Your task to perform on an android device: toggle improve location accuracy Image 0: 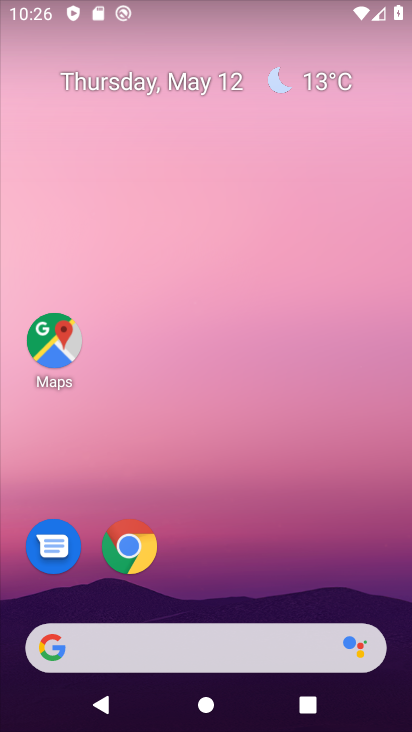
Step 0: drag from (193, 677) to (241, 376)
Your task to perform on an android device: toggle improve location accuracy Image 1: 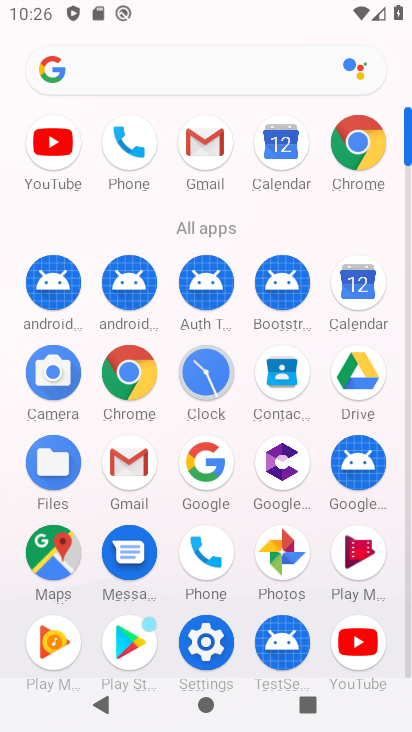
Step 1: click (215, 633)
Your task to perform on an android device: toggle improve location accuracy Image 2: 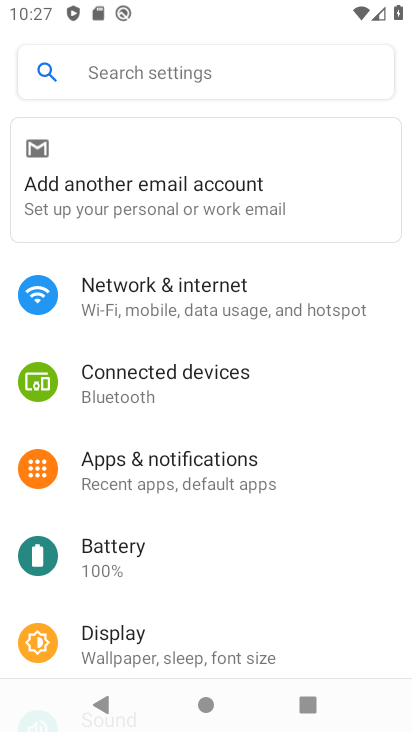
Step 2: click (131, 84)
Your task to perform on an android device: toggle improve location accuracy Image 3: 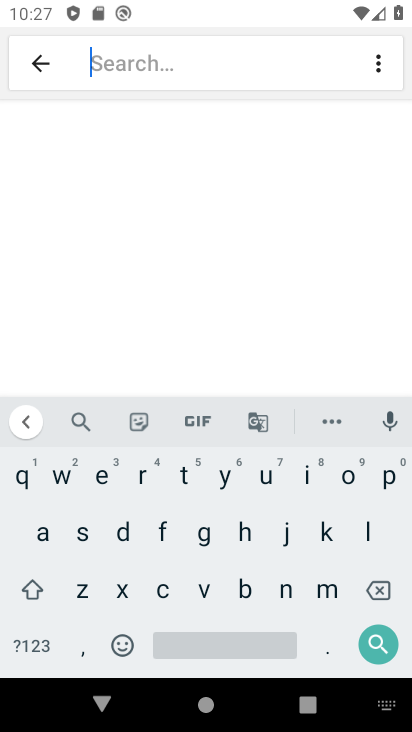
Step 3: click (369, 541)
Your task to perform on an android device: toggle improve location accuracy Image 4: 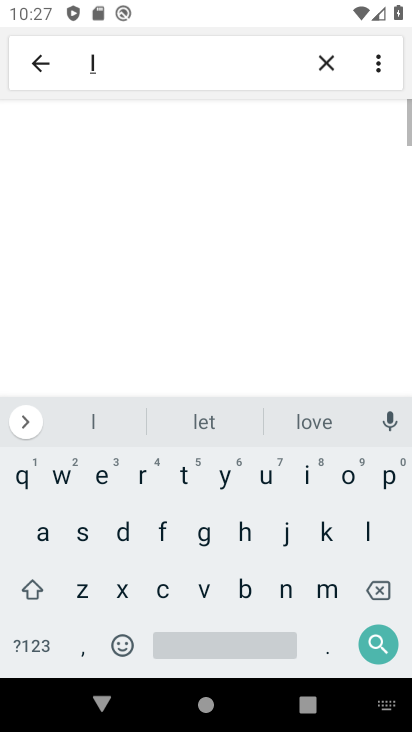
Step 4: click (341, 482)
Your task to perform on an android device: toggle improve location accuracy Image 5: 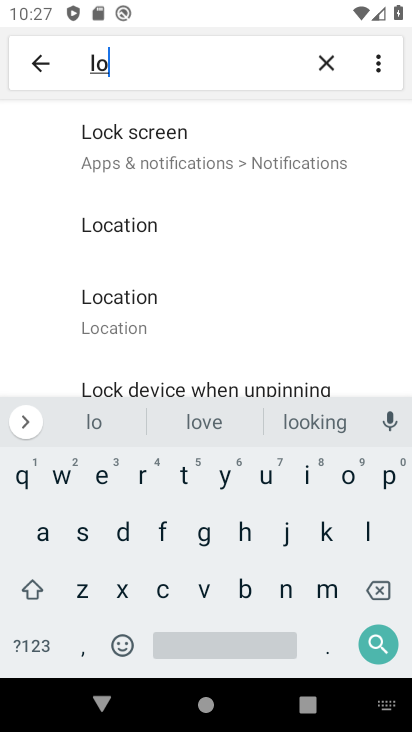
Step 5: click (161, 303)
Your task to perform on an android device: toggle improve location accuracy Image 6: 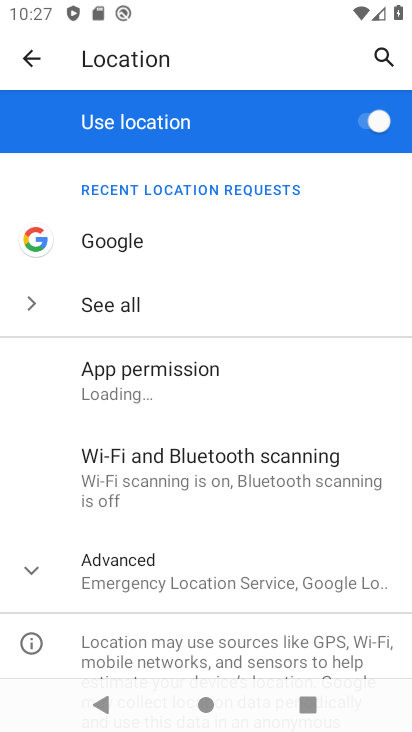
Step 6: click (59, 582)
Your task to perform on an android device: toggle improve location accuracy Image 7: 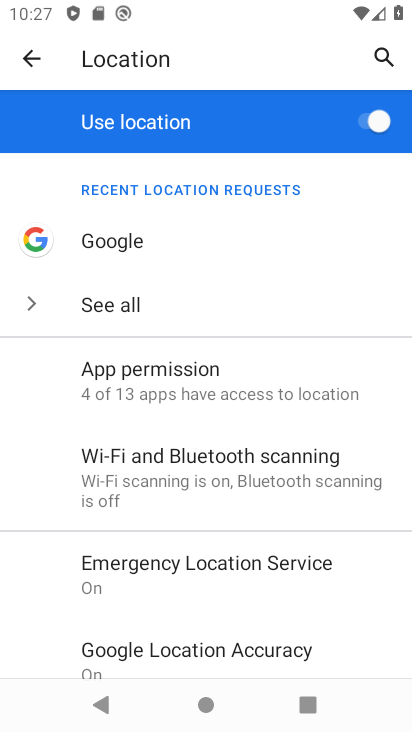
Step 7: drag from (153, 622) to (209, 462)
Your task to perform on an android device: toggle improve location accuracy Image 8: 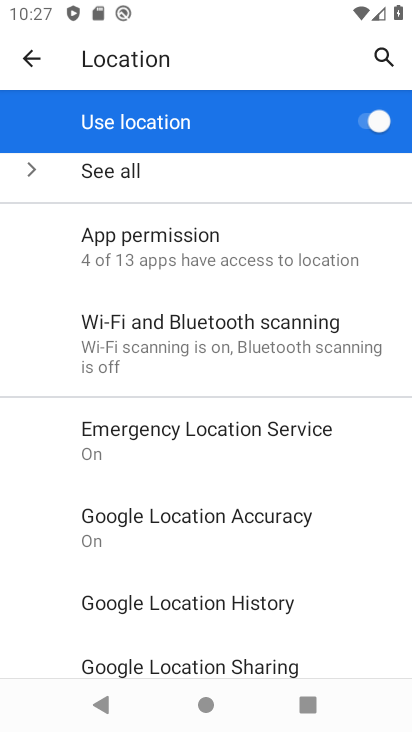
Step 8: click (204, 534)
Your task to perform on an android device: toggle improve location accuracy Image 9: 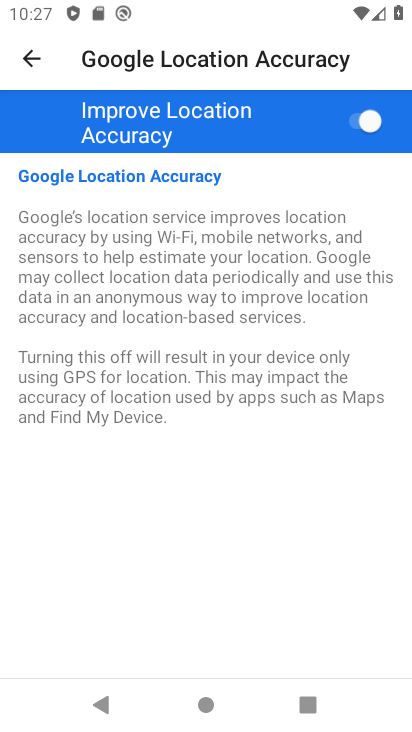
Step 9: task complete